Your task to perform on an android device: open app "Instagram" (install if not already installed) and enter user name: "nobler@yahoo.com" and password: "foraging" Image 0: 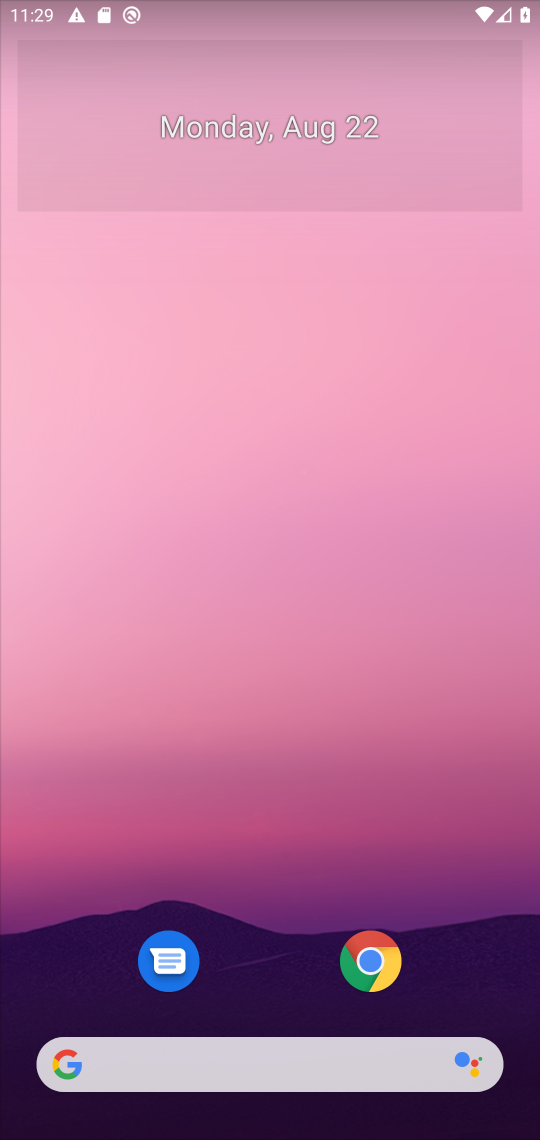
Step 0: drag from (266, 1016) to (394, 29)
Your task to perform on an android device: open app "Instagram" (install if not already installed) and enter user name: "nobler@yahoo.com" and password: "foraging" Image 1: 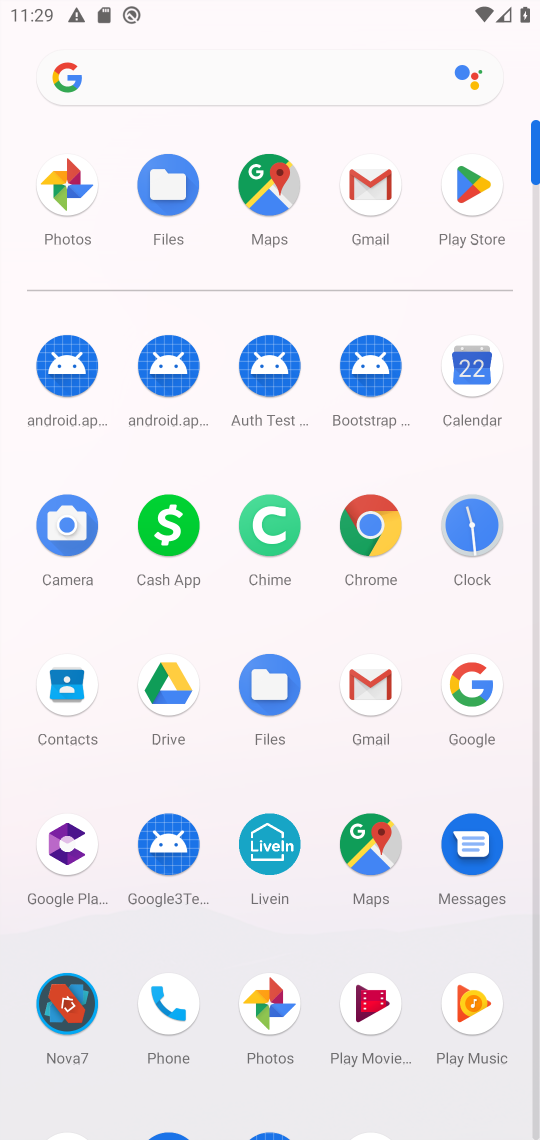
Step 1: drag from (361, 963) to (370, 496)
Your task to perform on an android device: open app "Instagram" (install if not already installed) and enter user name: "nobler@yahoo.com" and password: "foraging" Image 2: 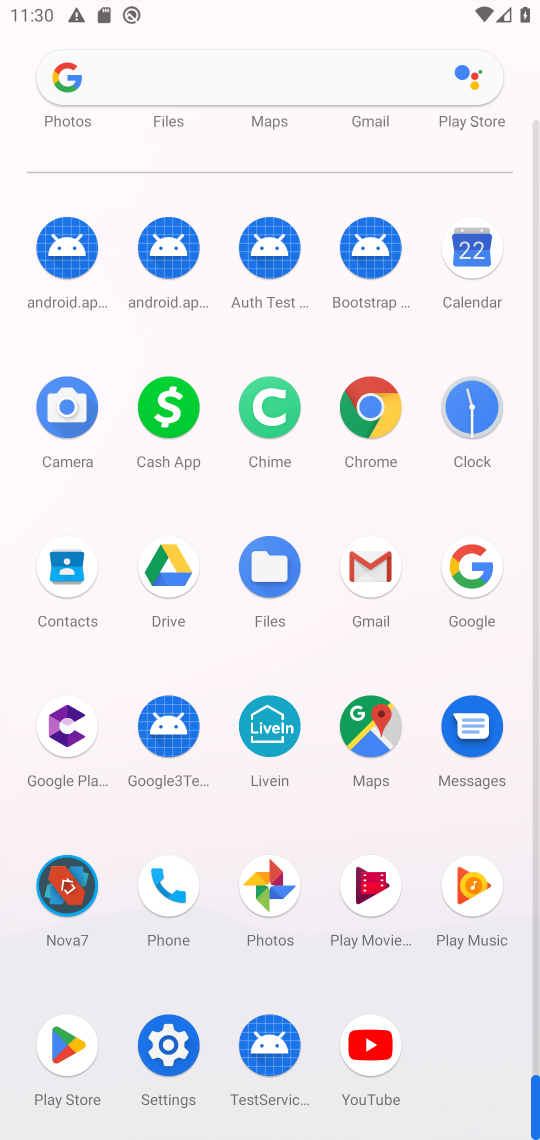
Step 2: click (71, 1020)
Your task to perform on an android device: open app "Instagram" (install if not already installed) and enter user name: "nobler@yahoo.com" and password: "foraging" Image 3: 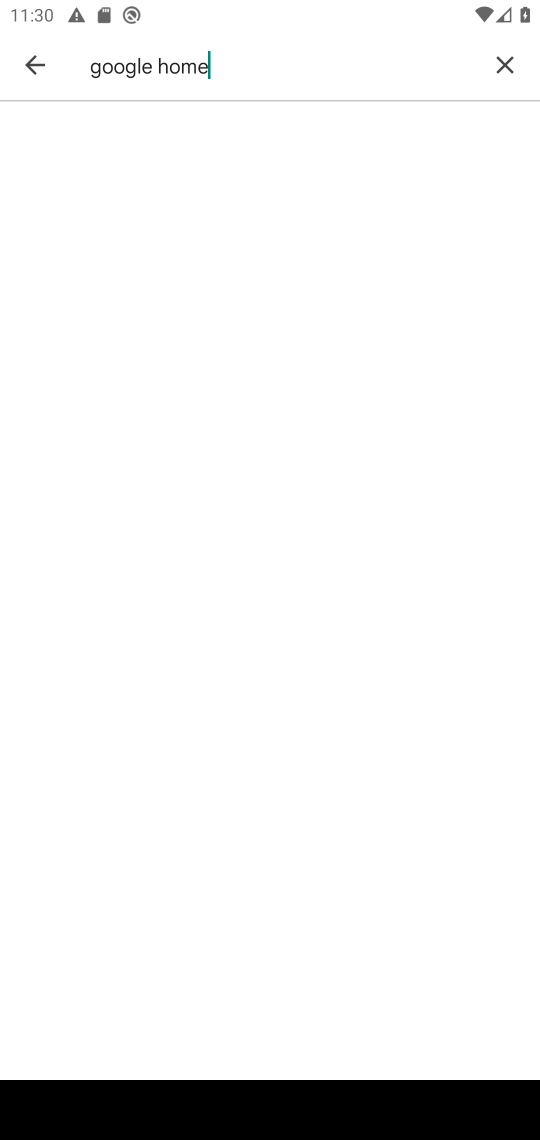
Step 3: click (504, 77)
Your task to perform on an android device: open app "Instagram" (install if not already installed) and enter user name: "nobler@yahoo.com" and password: "foraging" Image 4: 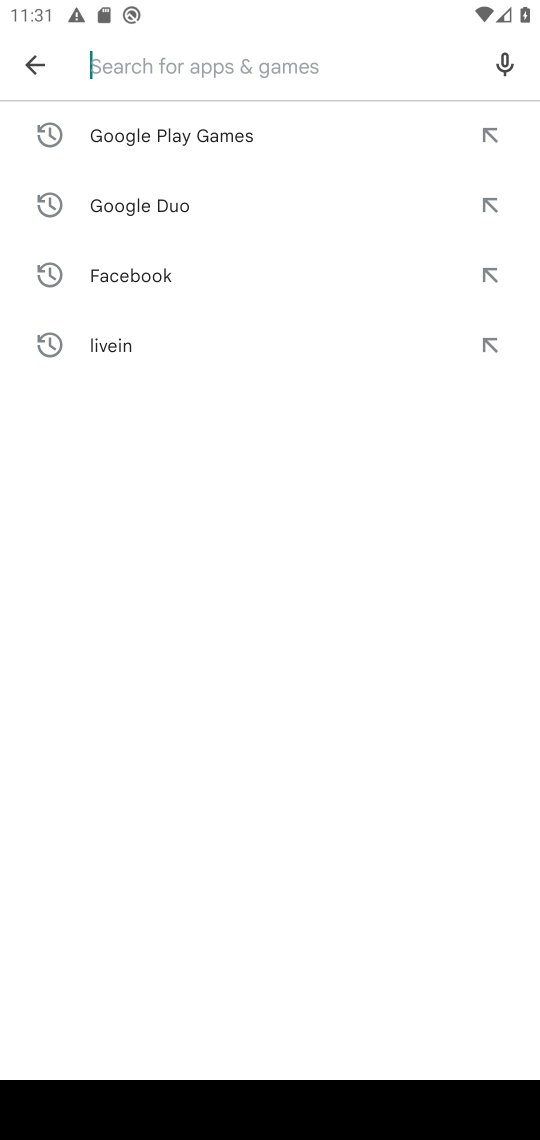
Step 4: type "instagram"
Your task to perform on an android device: open app "Instagram" (install if not already installed) and enter user name: "nobler@yahoo.com" and password: "foraging" Image 5: 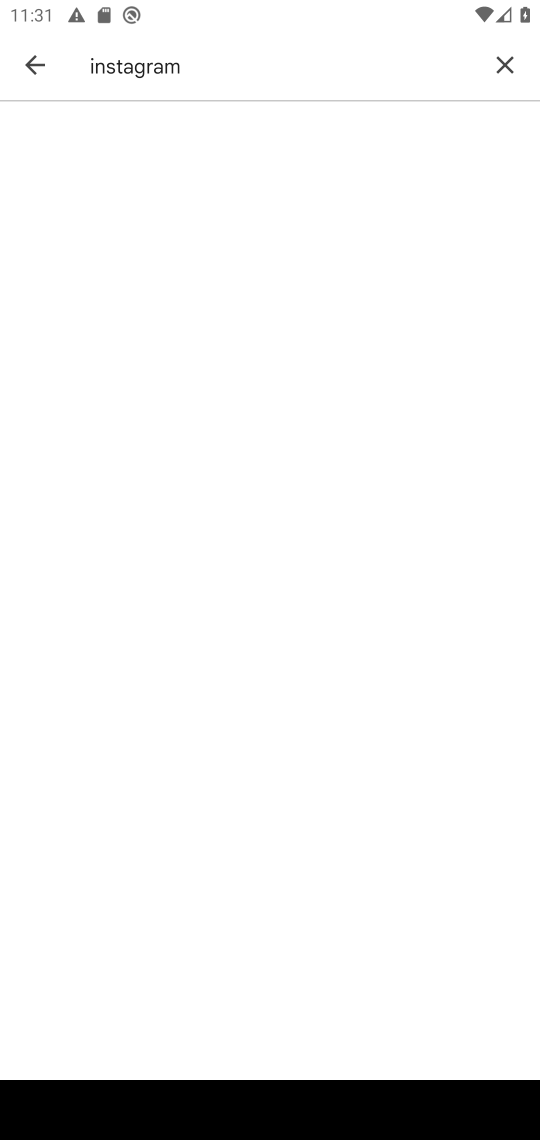
Step 5: task complete